Your task to perform on an android device: Open Youtube and go to "Your channel" Image 0: 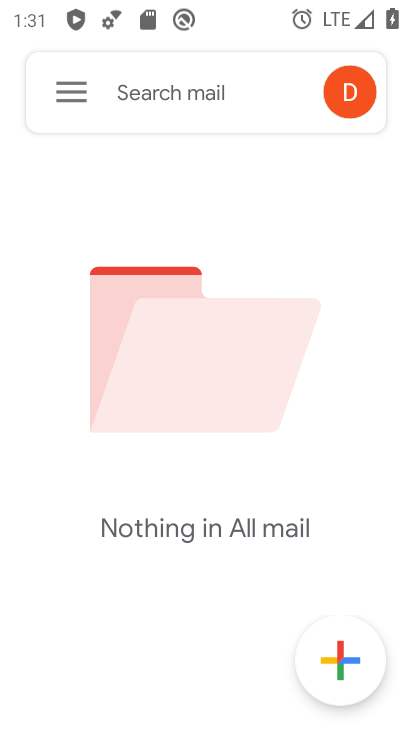
Step 0: press home button
Your task to perform on an android device: Open Youtube and go to "Your channel" Image 1: 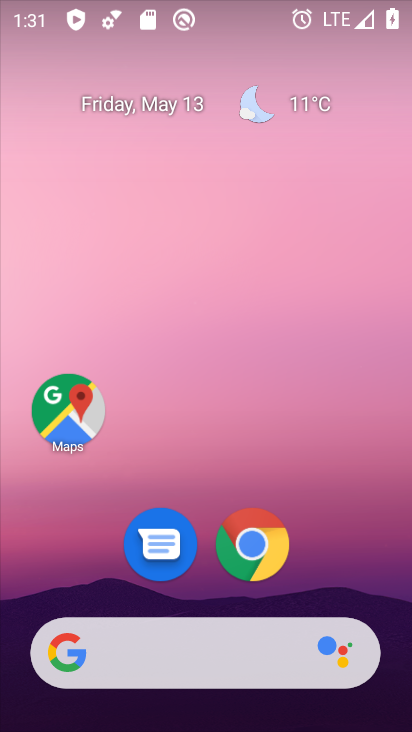
Step 1: drag from (202, 578) to (217, 254)
Your task to perform on an android device: Open Youtube and go to "Your channel" Image 2: 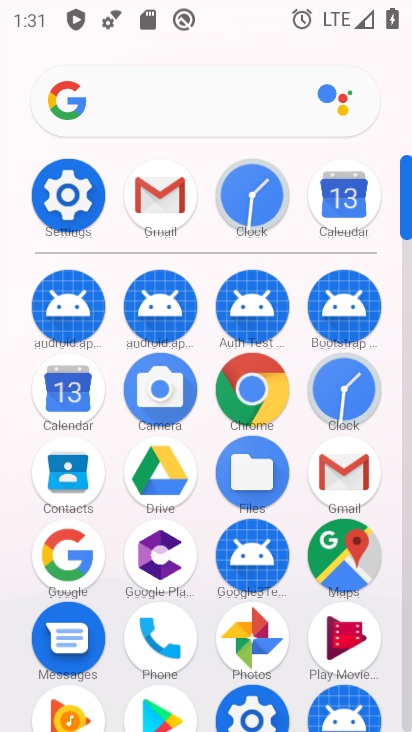
Step 2: drag from (200, 683) to (200, 424)
Your task to perform on an android device: Open Youtube and go to "Your channel" Image 3: 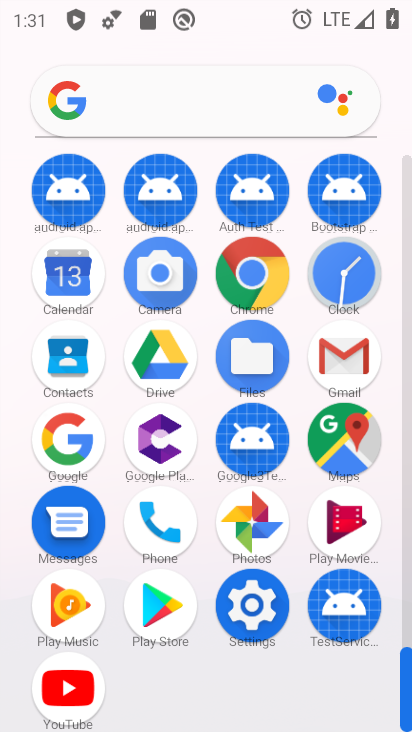
Step 3: click (70, 688)
Your task to perform on an android device: Open Youtube and go to "Your channel" Image 4: 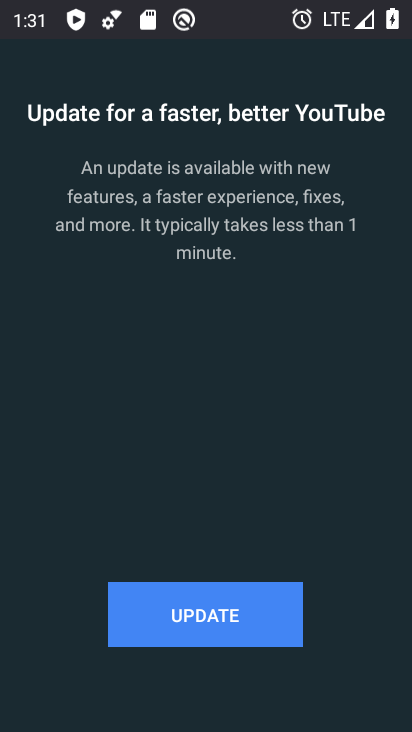
Step 4: click (223, 614)
Your task to perform on an android device: Open Youtube and go to "Your channel" Image 5: 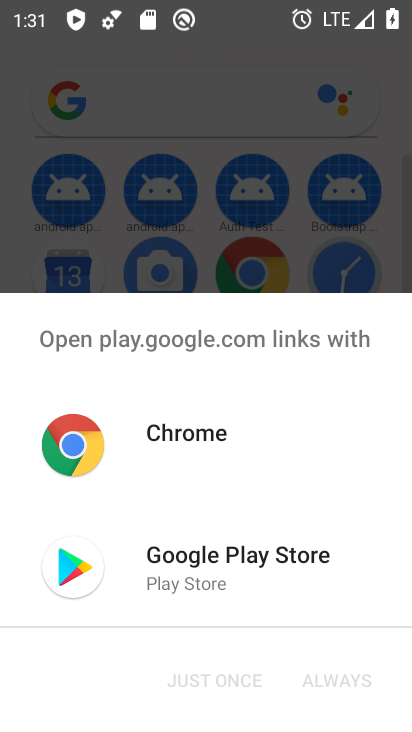
Step 5: drag from (214, 557) to (371, 557)
Your task to perform on an android device: Open Youtube and go to "Your channel" Image 6: 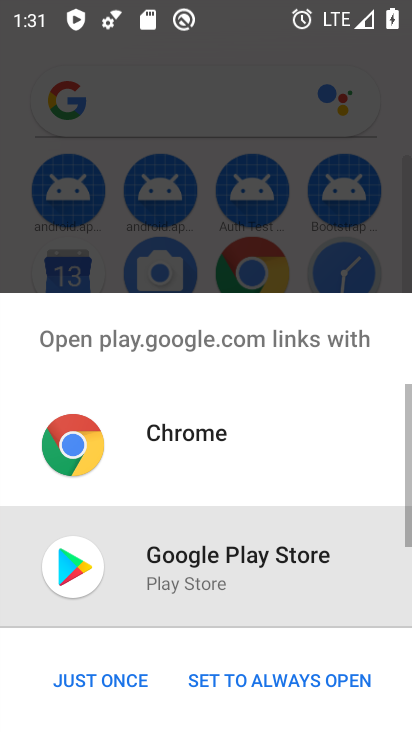
Step 6: click (246, 571)
Your task to perform on an android device: Open Youtube and go to "Your channel" Image 7: 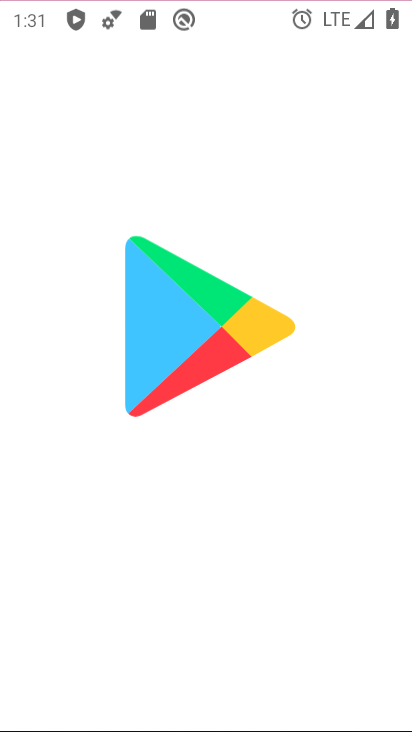
Step 7: click (104, 674)
Your task to perform on an android device: Open Youtube and go to "Your channel" Image 8: 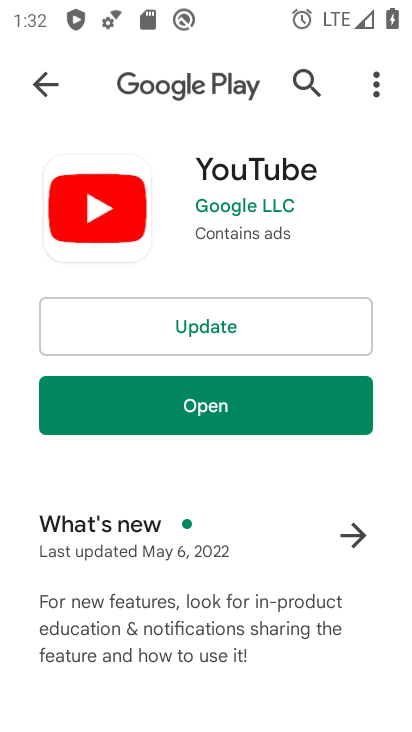
Step 8: click (241, 323)
Your task to perform on an android device: Open Youtube and go to "Your channel" Image 9: 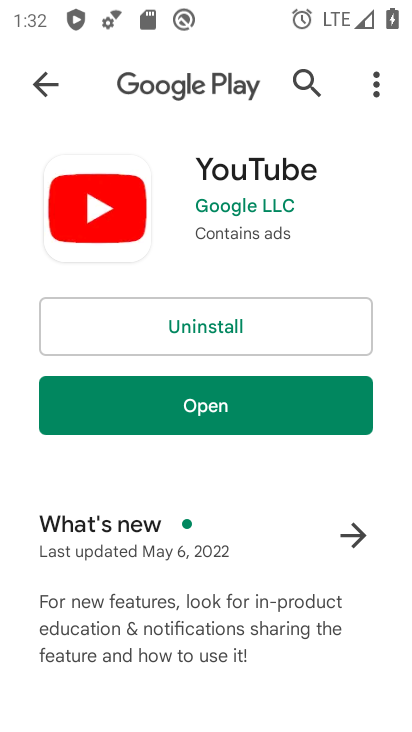
Step 9: click (219, 415)
Your task to perform on an android device: Open Youtube and go to "Your channel" Image 10: 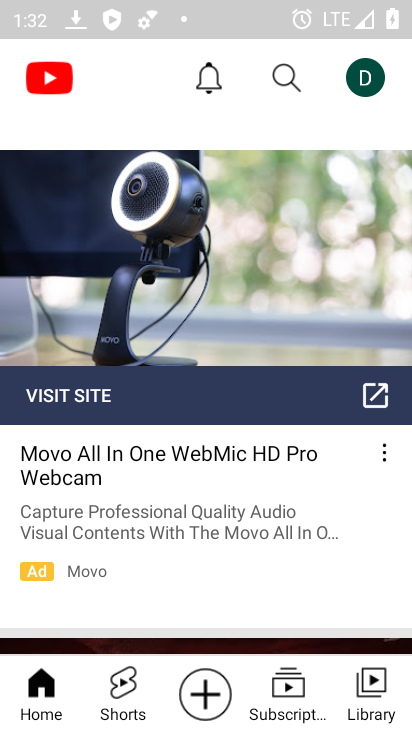
Step 10: click (362, 82)
Your task to perform on an android device: Open Youtube and go to "Your channel" Image 11: 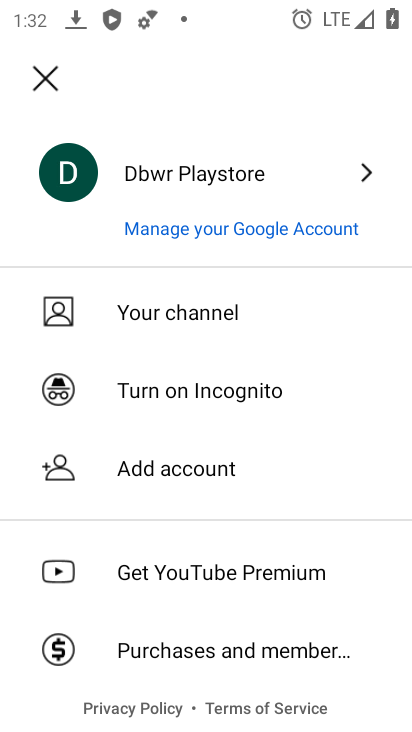
Step 11: click (188, 325)
Your task to perform on an android device: Open Youtube and go to "Your channel" Image 12: 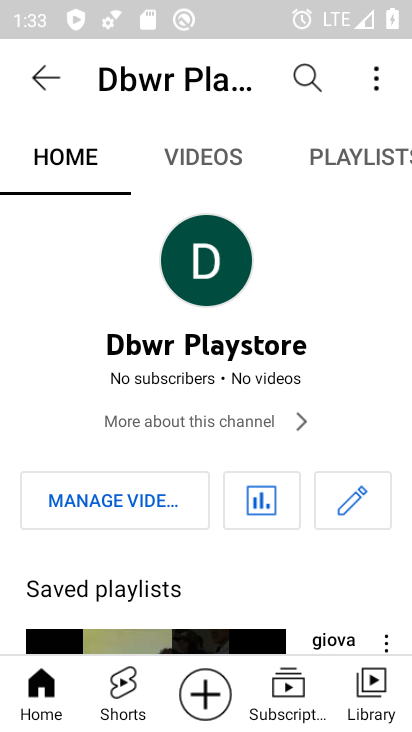
Step 12: task complete